Your task to perform on an android device: turn off improve location accuracy Image 0: 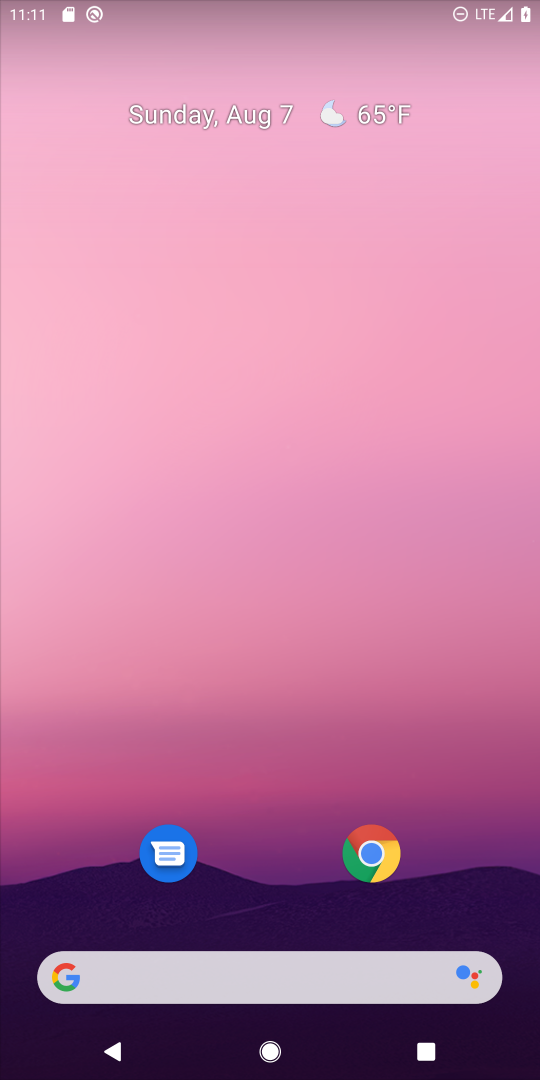
Step 0: drag from (242, 947) to (197, 272)
Your task to perform on an android device: turn off improve location accuracy Image 1: 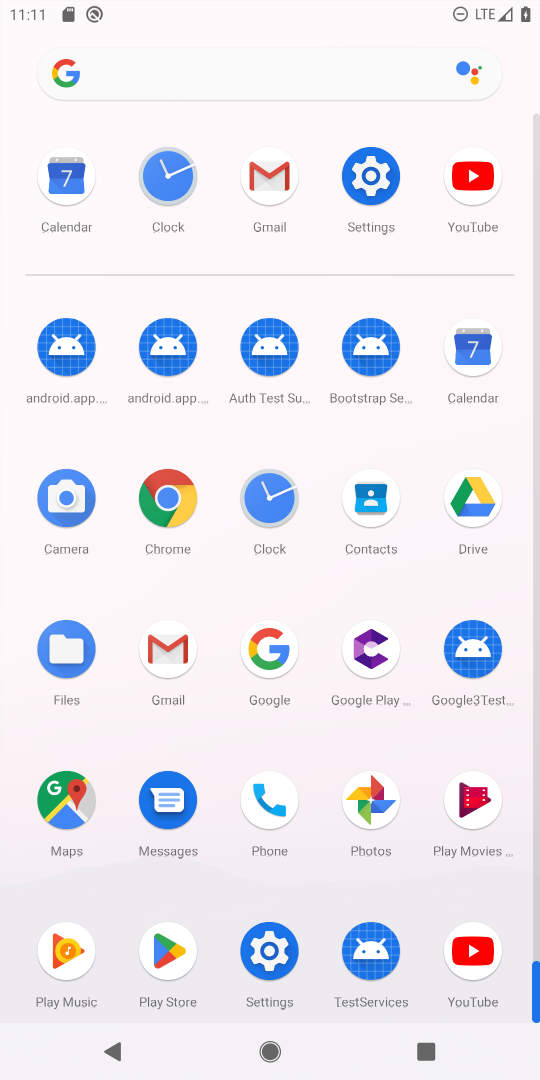
Step 1: click (373, 148)
Your task to perform on an android device: turn off improve location accuracy Image 2: 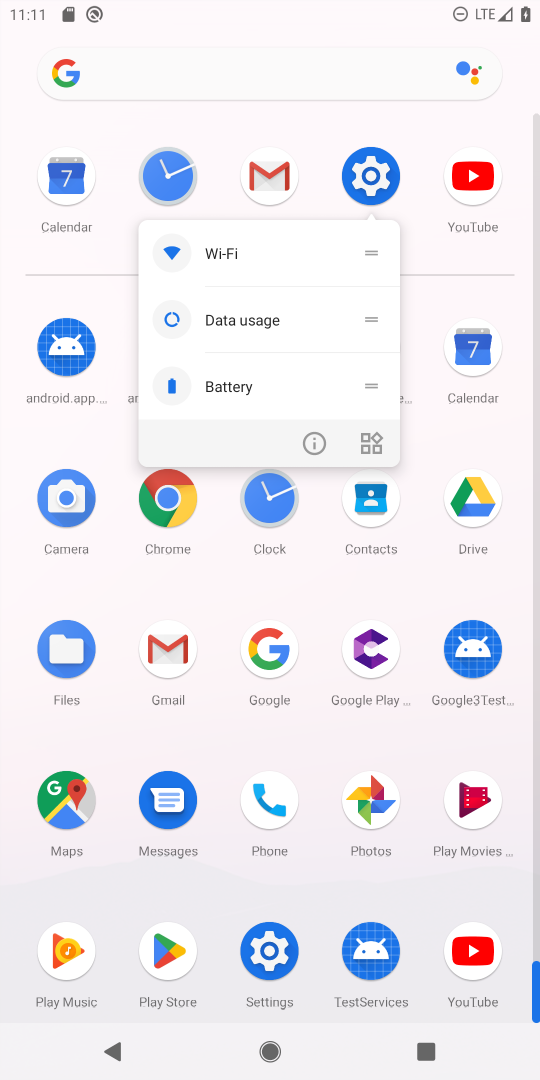
Step 2: click (367, 158)
Your task to perform on an android device: turn off improve location accuracy Image 3: 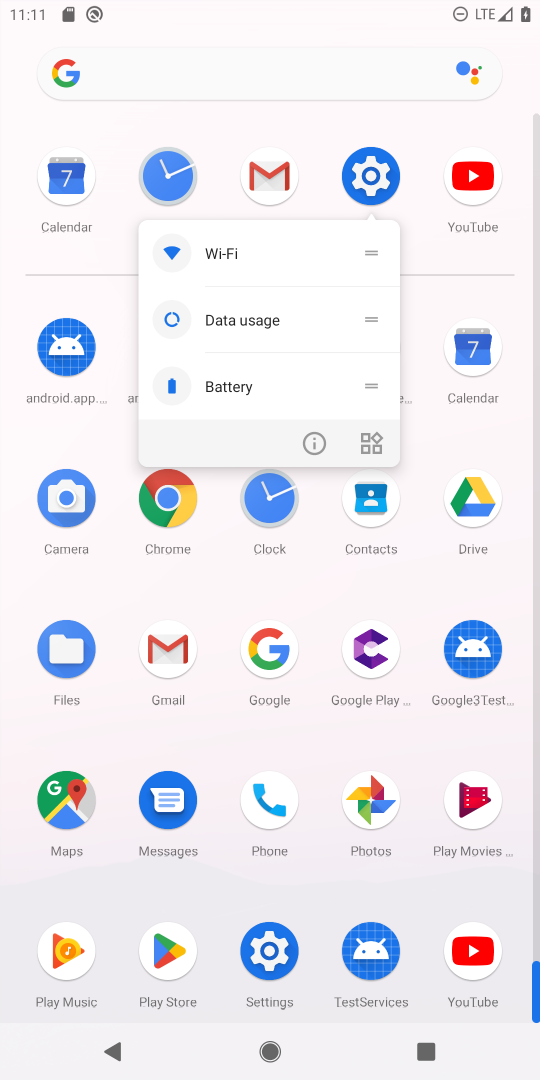
Step 3: click (370, 192)
Your task to perform on an android device: turn off improve location accuracy Image 4: 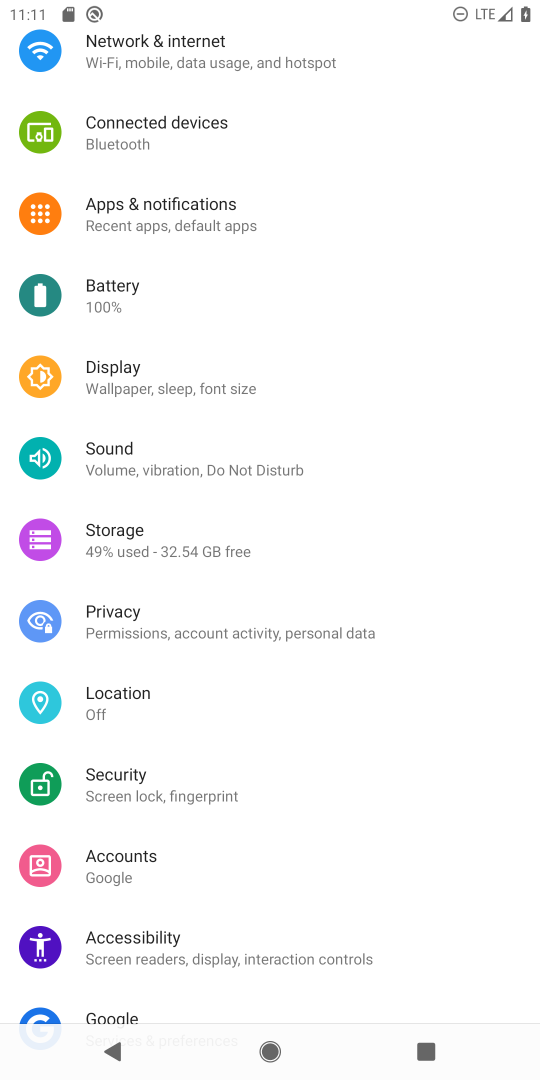
Step 4: click (143, 711)
Your task to perform on an android device: turn off improve location accuracy Image 5: 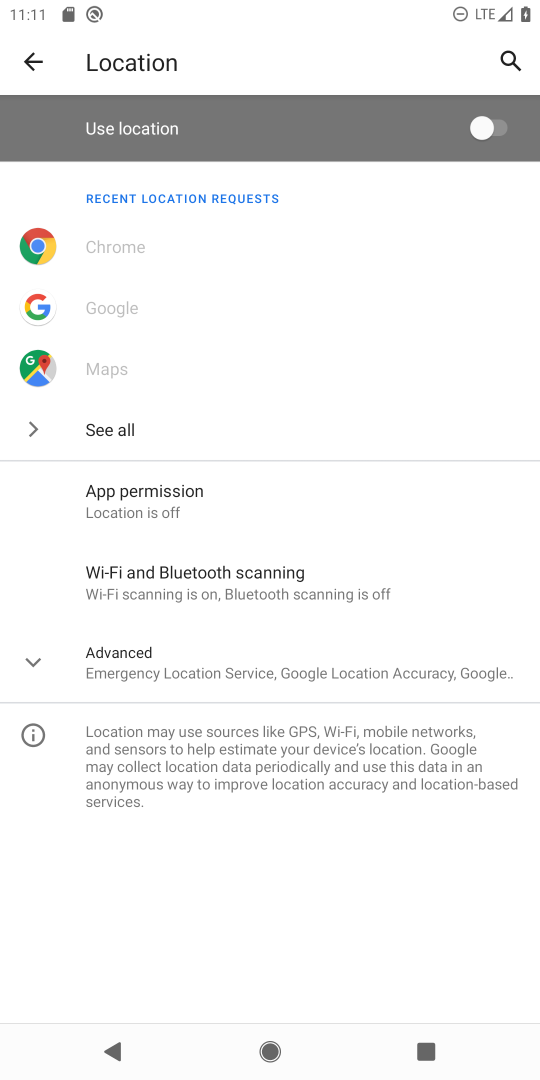
Step 5: click (179, 668)
Your task to perform on an android device: turn off improve location accuracy Image 6: 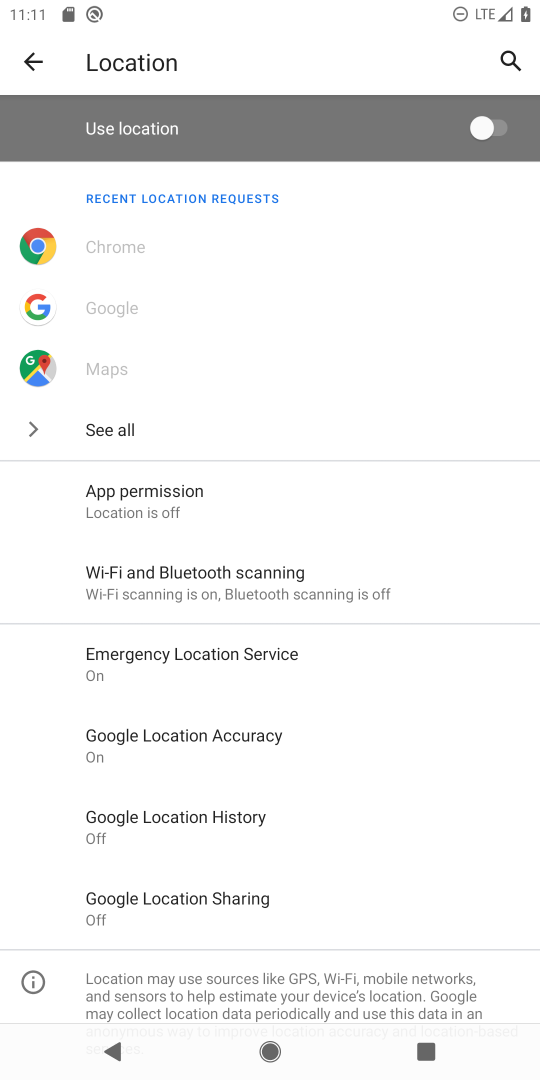
Step 6: click (232, 742)
Your task to perform on an android device: turn off improve location accuracy Image 7: 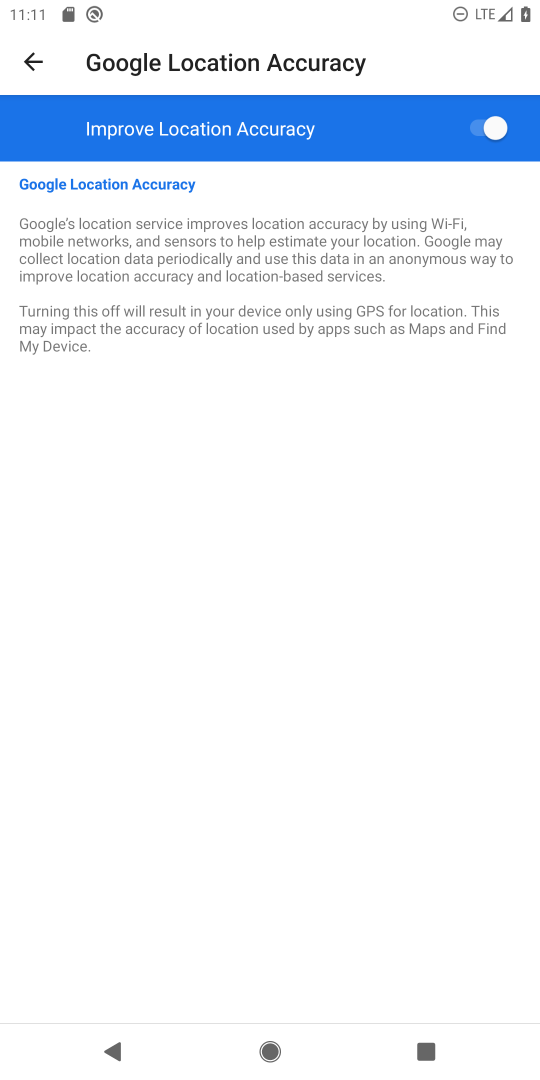
Step 7: click (470, 111)
Your task to perform on an android device: turn off improve location accuracy Image 8: 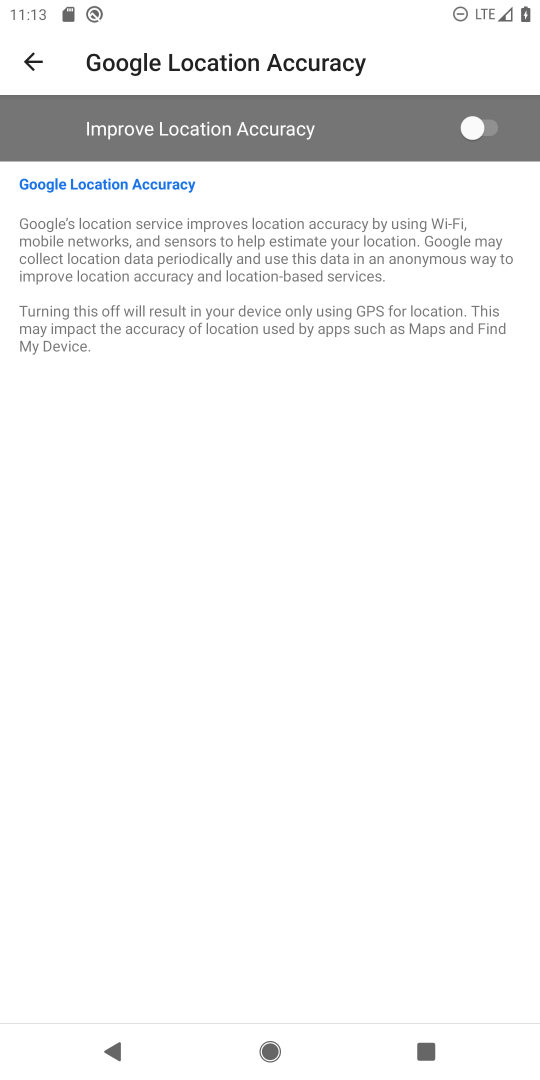
Step 8: task complete